Your task to perform on an android device: Empty the shopping cart on walmart.com. Search for "beats solo 3" on walmart.com, select the first entry, and add it to the cart. Image 0: 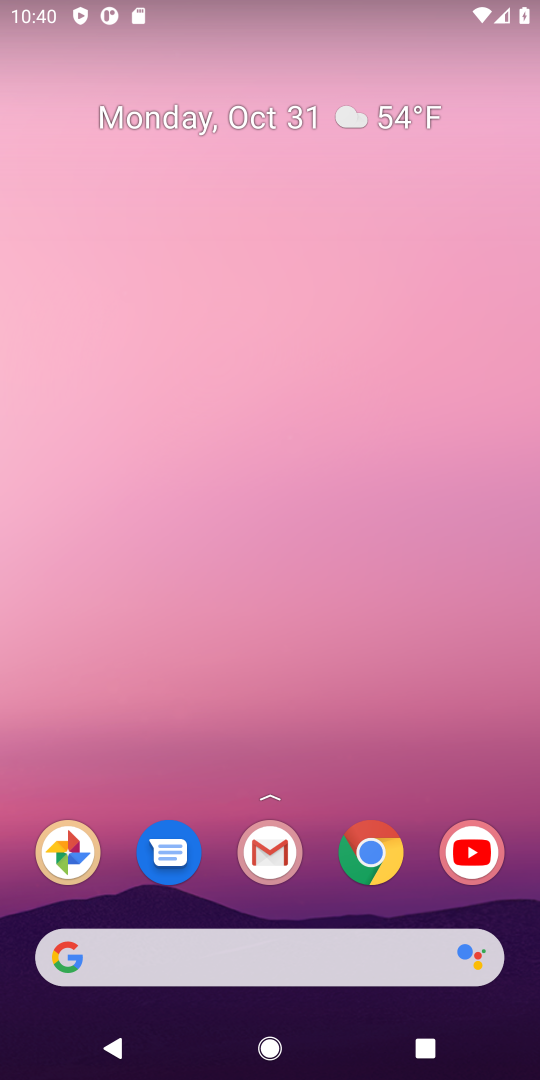
Step 0: click (356, 855)
Your task to perform on an android device: Empty the shopping cart on walmart.com. Search for "beats solo 3" on walmart.com, select the first entry, and add it to the cart. Image 1: 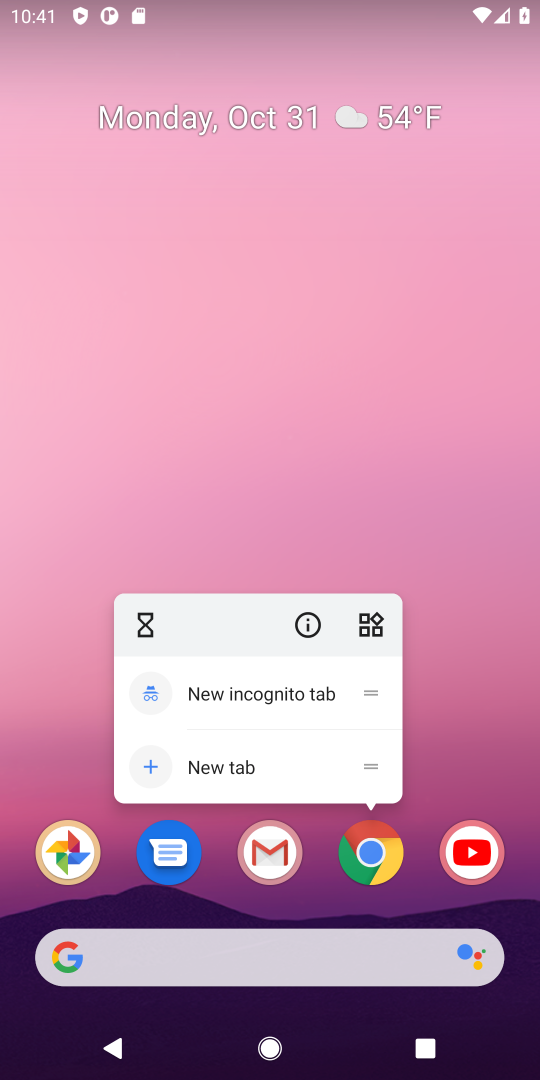
Step 1: click (380, 852)
Your task to perform on an android device: Empty the shopping cart on walmart.com. Search for "beats solo 3" on walmart.com, select the first entry, and add it to the cart. Image 2: 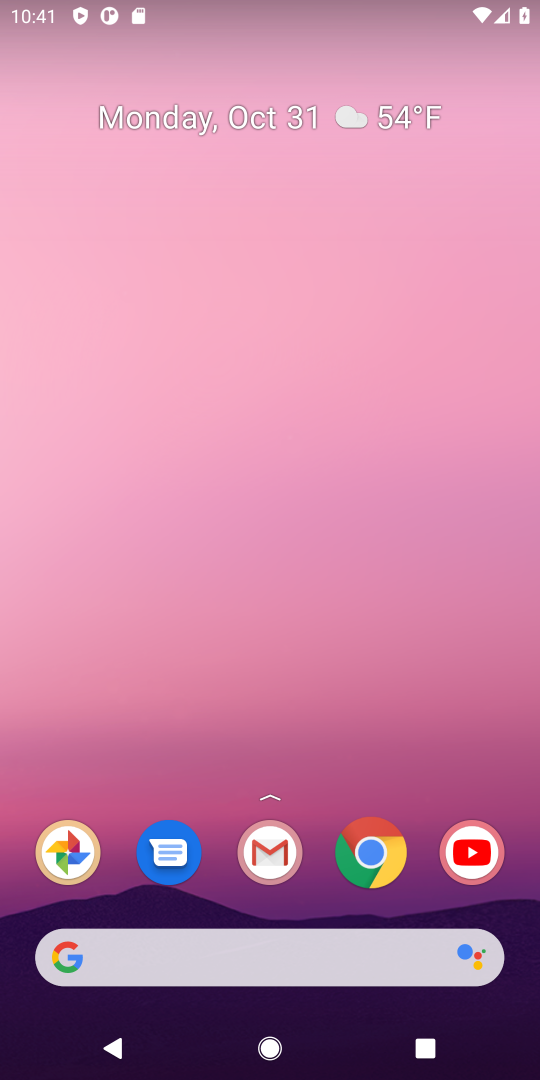
Step 2: click (380, 852)
Your task to perform on an android device: Empty the shopping cart on walmart.com. Search for "beats solo 3" on walmart.com, select the first entry, and add it to the cart. Image 3: 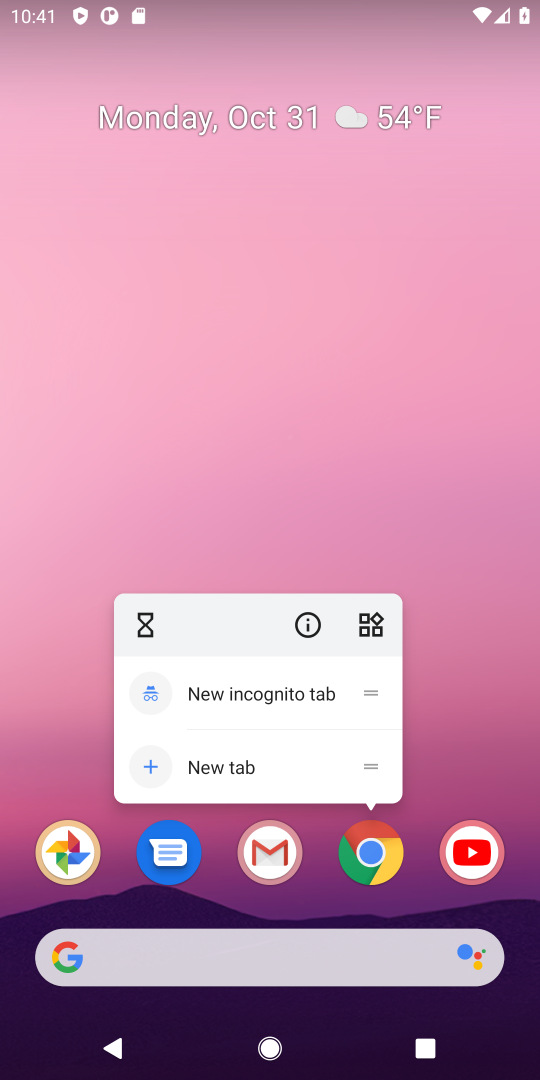
Step 3: click (382, 865)
Your task to perform on an android device: Empty the shopping cart on walmart.com. Search for "beats solo 3" on walmart.com, select the first entry, and add it to the cart. Image 4: 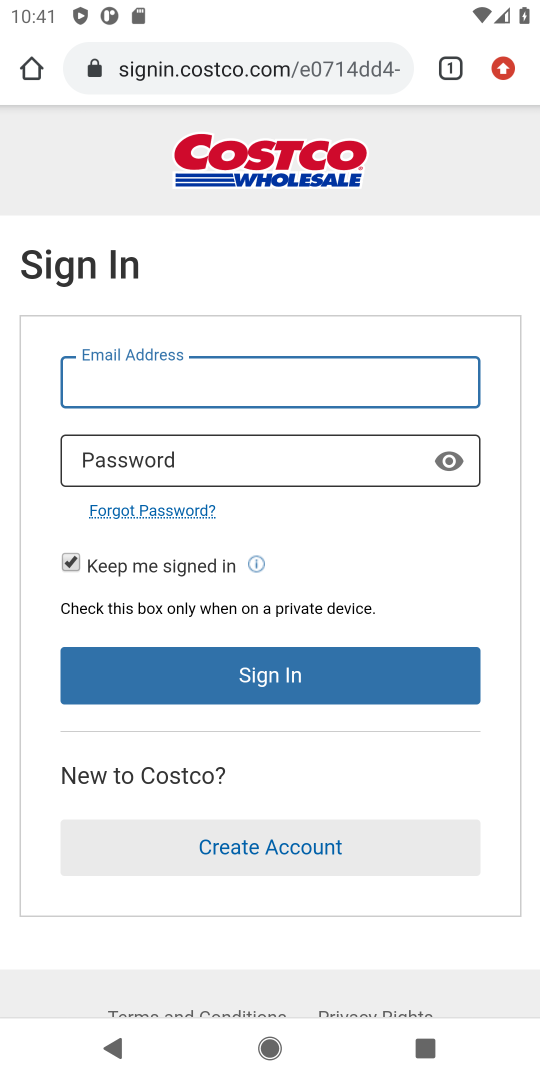
Step 4: click (258, 60)
Your task to perform on an android device: Empty the shopping cart on walmart.com. Search for "beats solo 3" on walmart.com, select the first entry, and add it to the cart. Image 5: 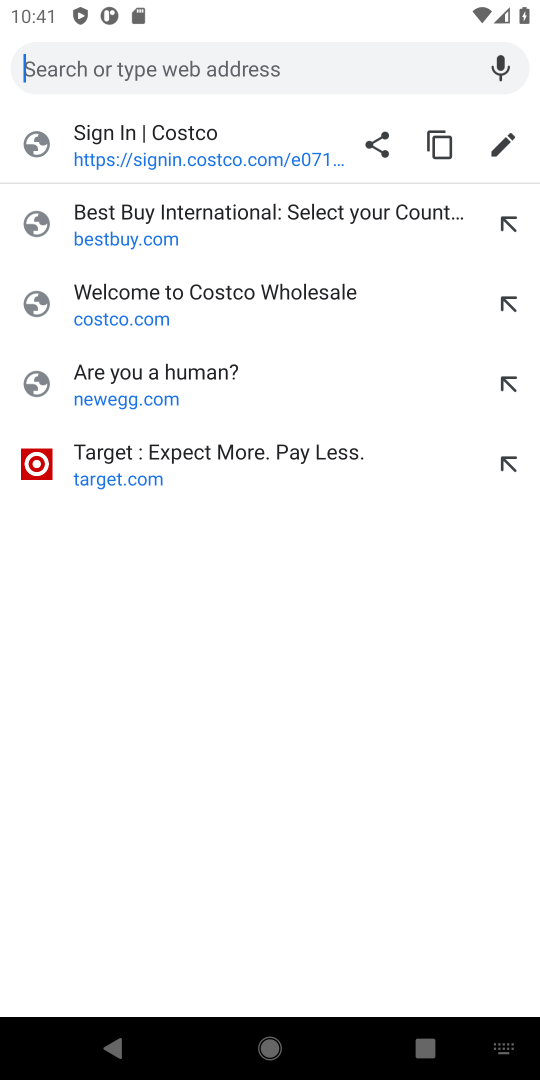
Step 5: type "walmart.com"
Your task to perform on an android device: Empty the shopping cart on walmart.com. Search for "beats solo 3" on walmart.com, select the first entry, and add it to the cart. Image 6: 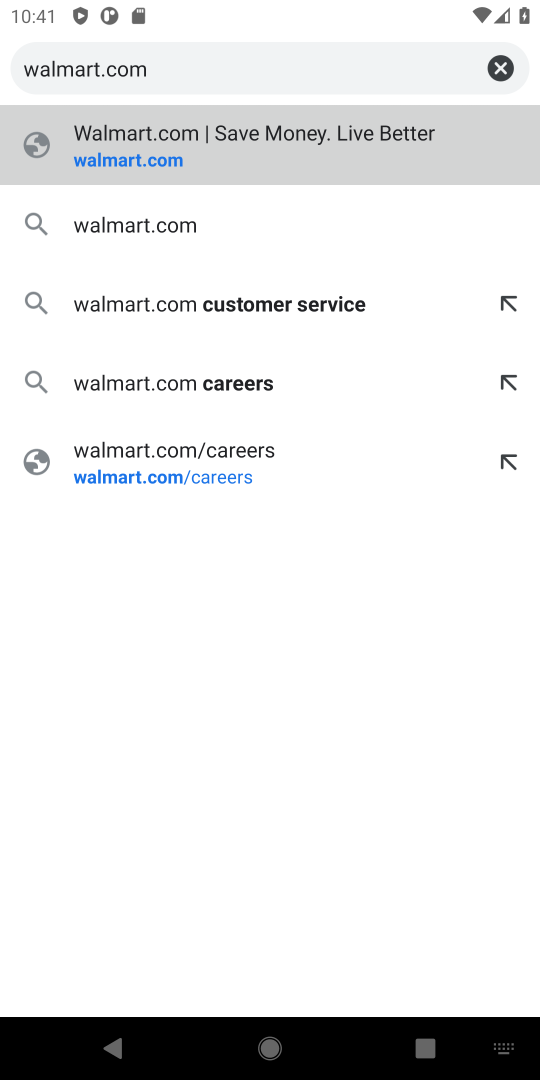
Step 6: type ""
Your task to perform on an android device: Empty the shopping cart on walmart.com. Search for "beats solo 3" on walmart.com, select the first entry, and add it to the cart. Image 7: 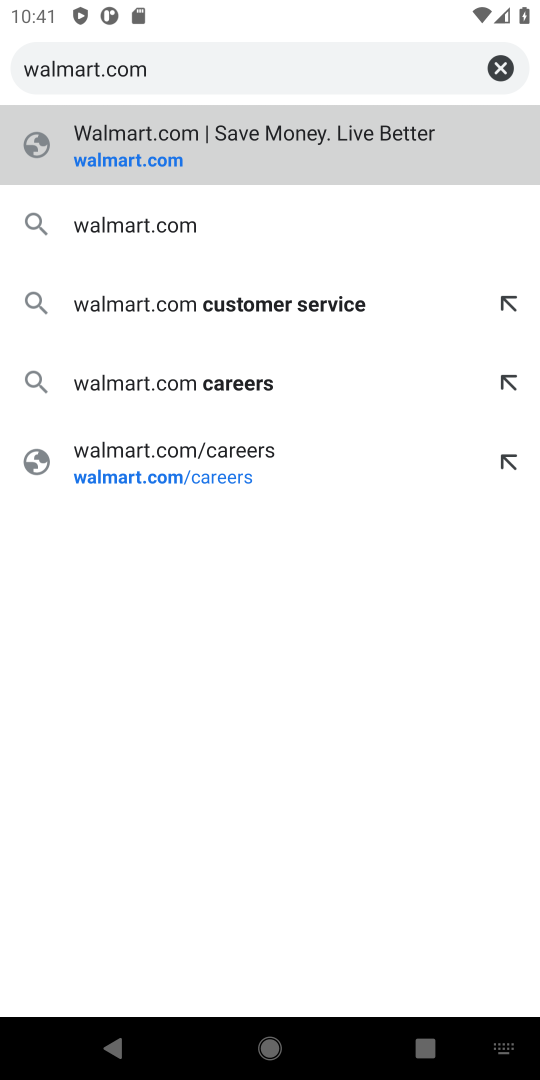
Step 7: press enter
Your task to perform on an android device: Empty the shopping cart on walmart.com. Search for "beats solo 3" on walmart.com, select the first entry, and add it to the cart. Image 8: 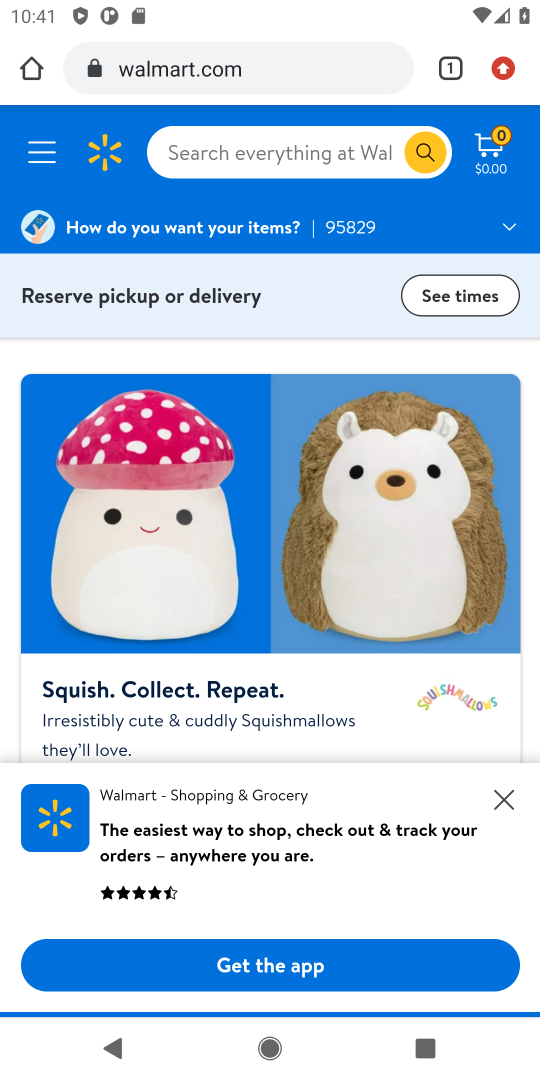
Step 8: click (497, 151)
Your task to perform on an android device: Empty the shopping cart on walmart.com. Search for "beats solo 3" on walmart.com, select the first entry, and add it to the cart. Image 9: 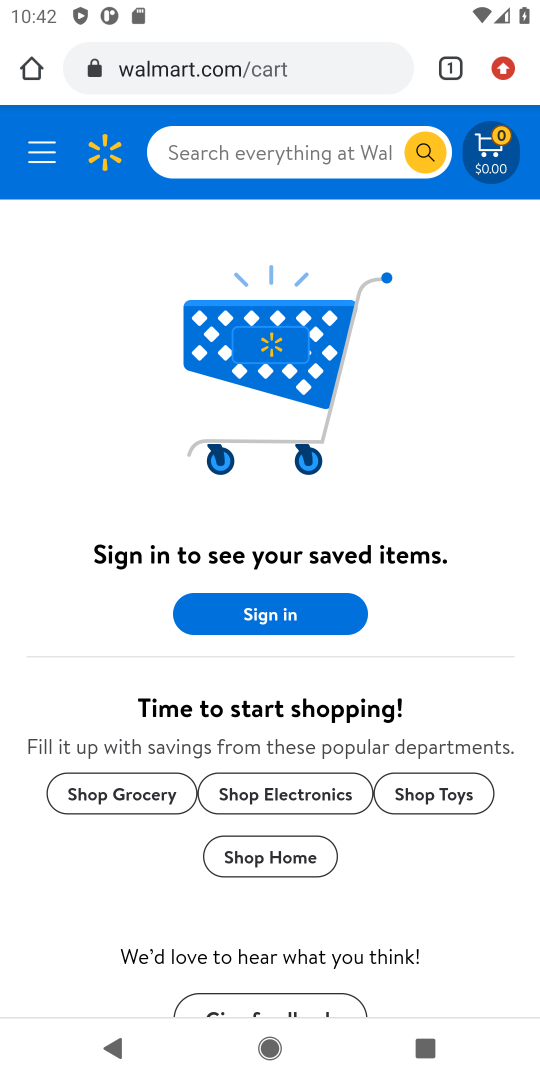
Step 9: click (277, 150)
Your task to perform on an android device: Empty the shopping cart on walmart.com. Search for "beats solo 3" on walmart.com, select the first entry, and add it to the cart. Image 10: 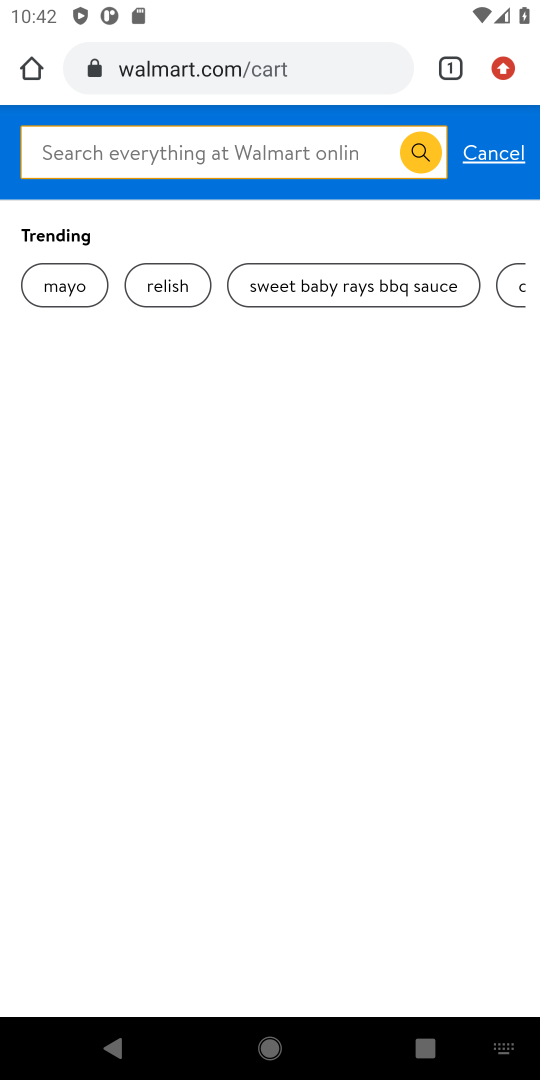
Step 10: type "beats solo 3"
Your task to perform on an android device: Empty the shopping cart on walmart.com. Search for "beats solo 3" on walmart.com, select the first entry, and add it to the cart. Image 11: 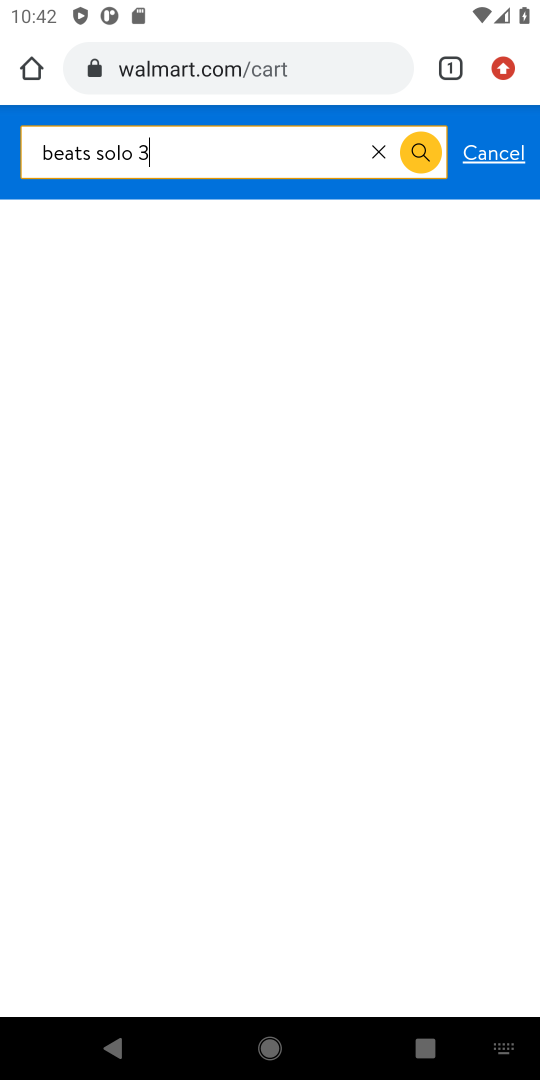
Step 11: type ""
Your task to perform on an android device: Empty the shopping cart on walmart.com. Search for "beats solo 3" on walmart.com, select the first entry, and add it to the cart. Image 12: 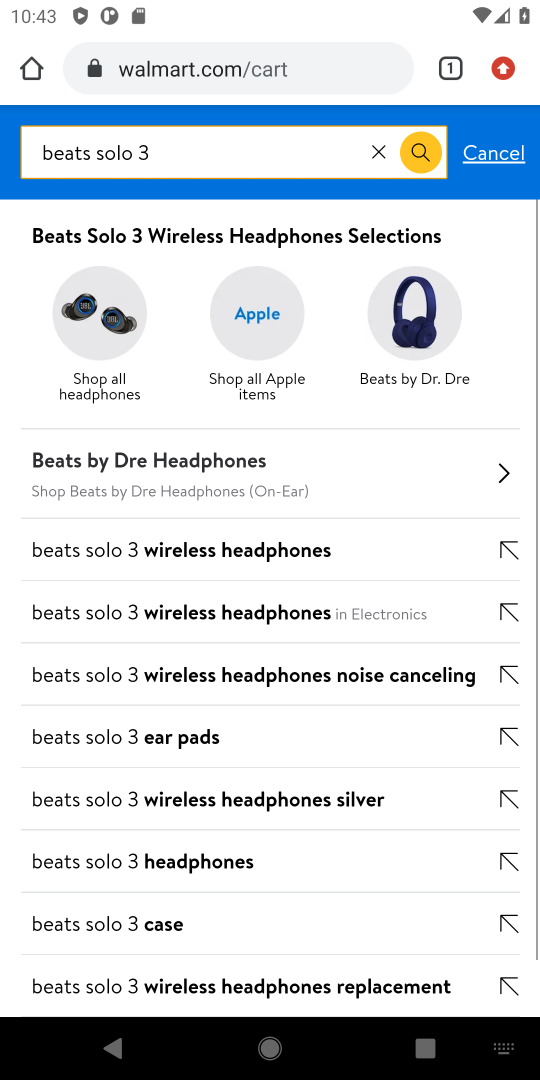
Step 12: press enter
Your task to perform on an android device: Empty the shopping cart on walmart.com. Search for "beats solo 3" on walmart.com, select the first entry, and add it to the cart. Image 13: 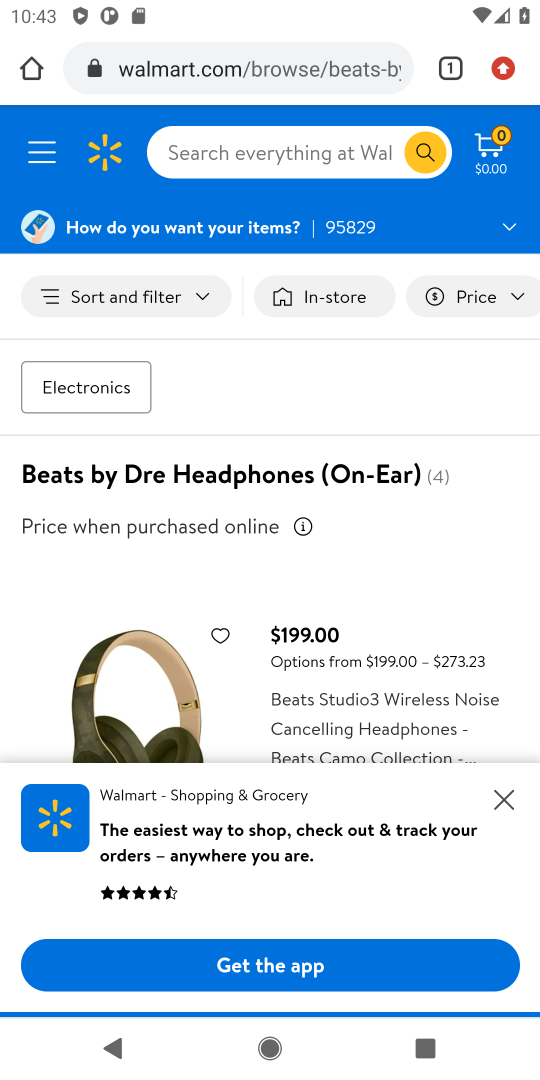
Step 13: click (502, 805)
Your task to perform on an android device: Empty the shopping cart on walmart.com. Search for "beats solo 3" on walmart.com, select the first entry, and add it to the cart. Image 14: 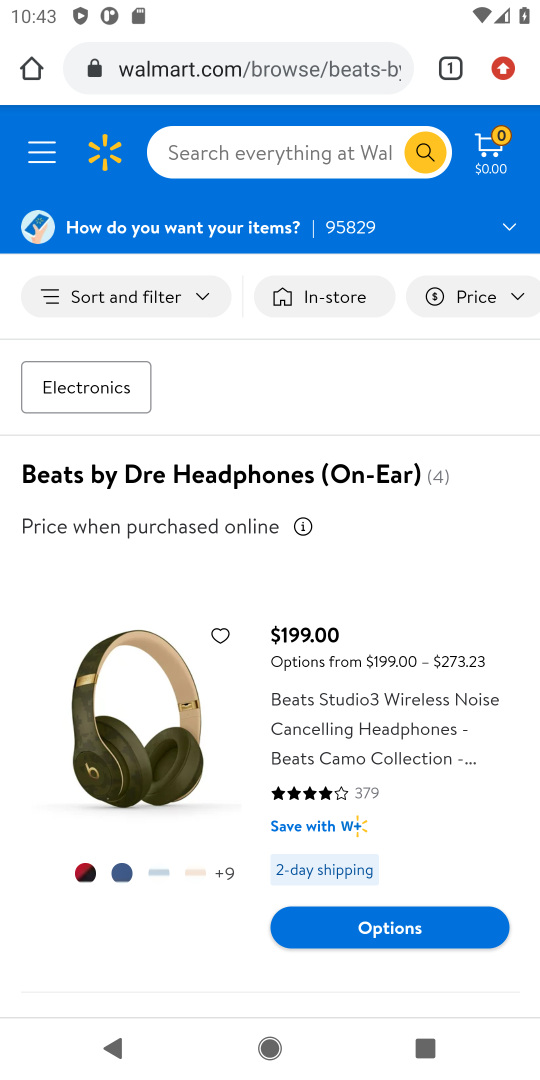
Step 14: drag from (391, 677) to (367, 413)
Your task to perform on an android device: Empty the shopping cart on walmart.com. Search for "beats solo 3" on walmart.com, select the first entry, and add it to the cart. Image 15: 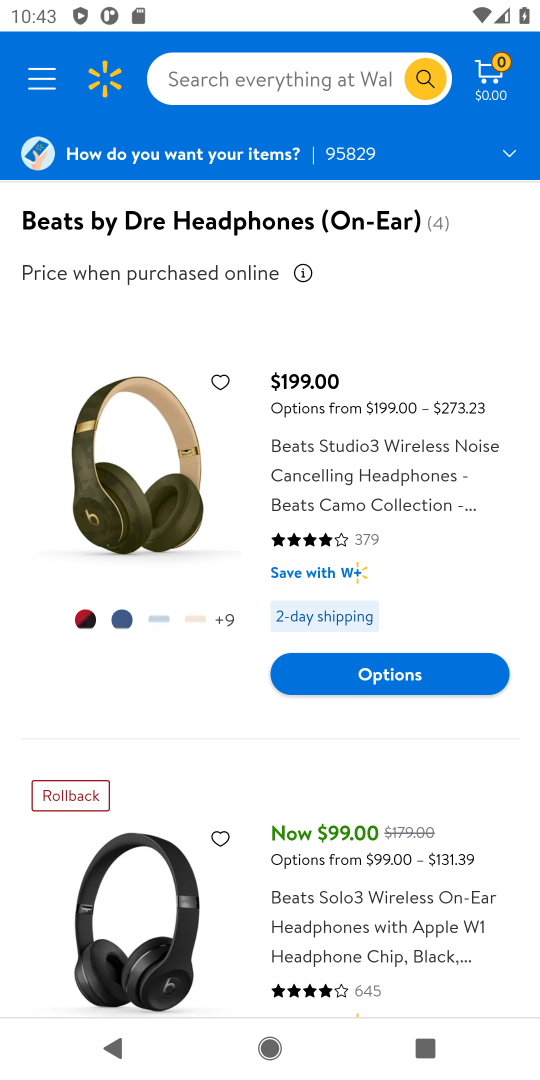
Step 15: drag from (268, 798) to (302, 359)
Your task to perform on an android device: Empty the shopping cart on walmart.com. Search for "beats solo 3" on walmart.com, select the first entry, and add it to the cart. Image 16: 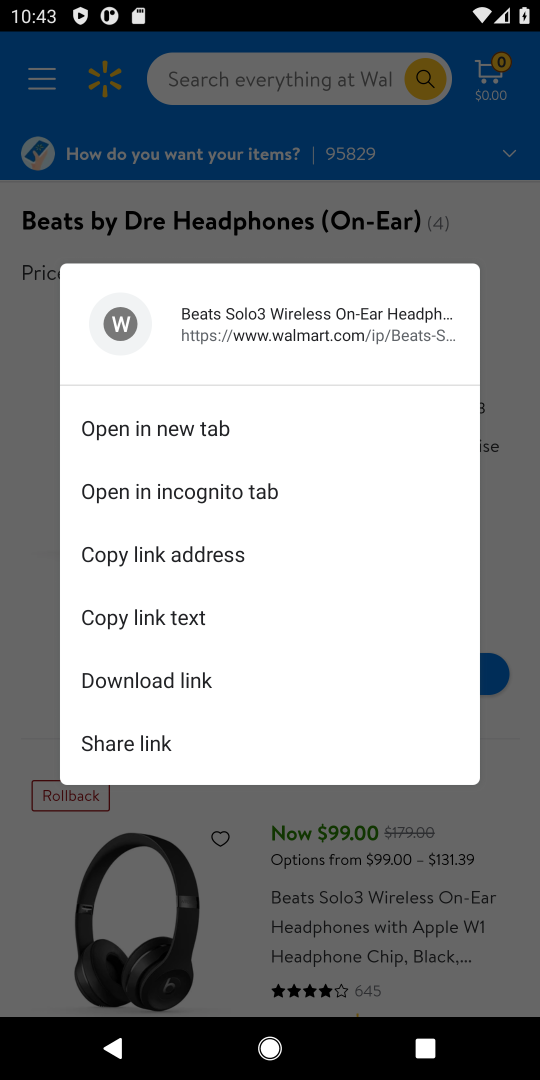
Step 16: click (512, 547)
Your task to perform on an android device: Empty the shopping cart on walmart.com. Search for "beats solo 3" on walmart.com, select the first entry, and add it to the cart. Image 17: 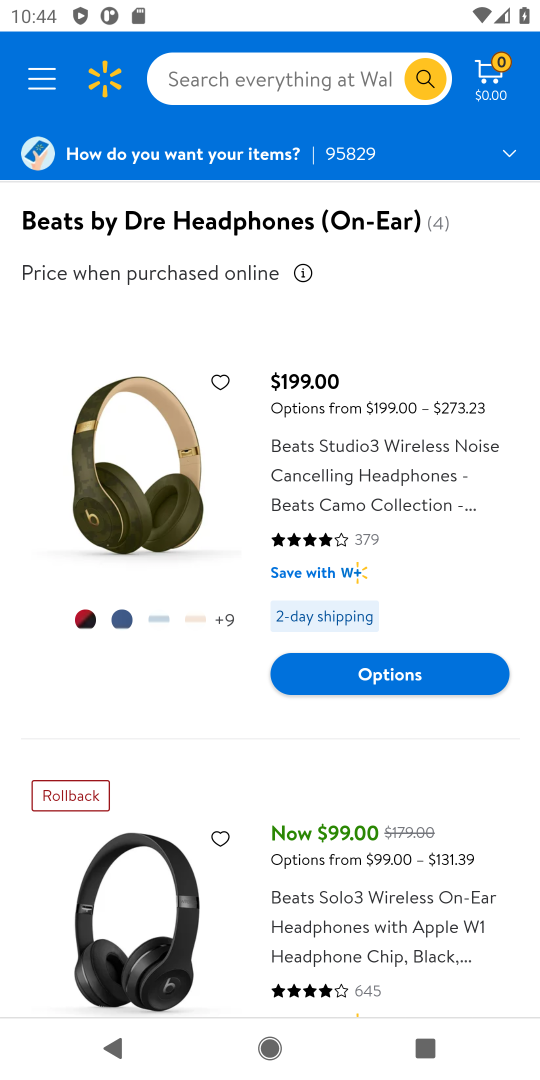
Step 17: drag from (399, 908) to (451, 574)
Your task to perform on an android device: Empty the shopping cart on walmart.com. Search for "beats solo 3" on walmart.com, select the first entry, and add it to the cart. Image 18: 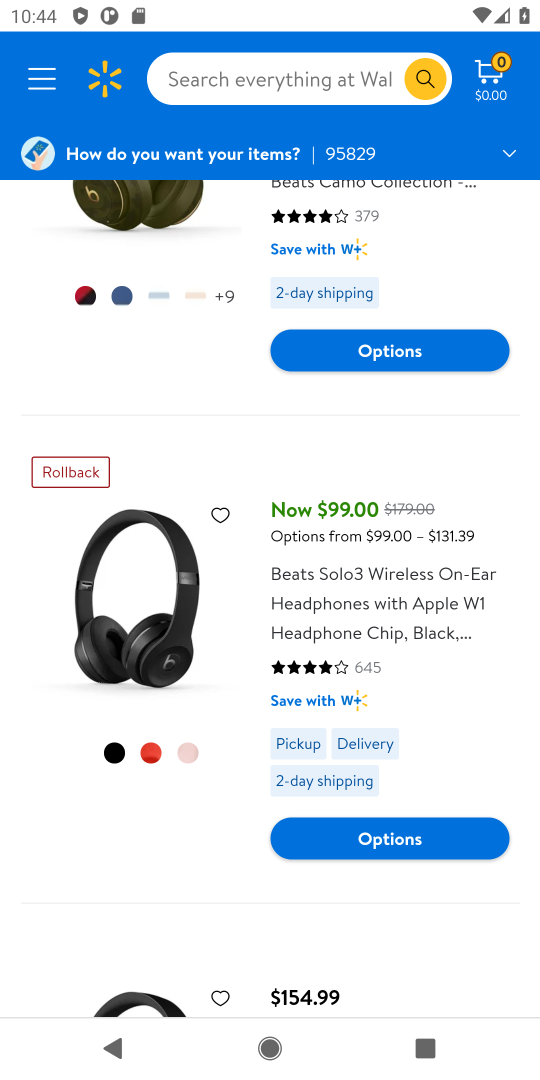
Step 18: click (405, 843)
Your task to perform on an android device: Empty the shopping cart on walmart.com. Search for "beats solo 3" on walmart.com, select the first entry, and add it to the cart. Image 19: 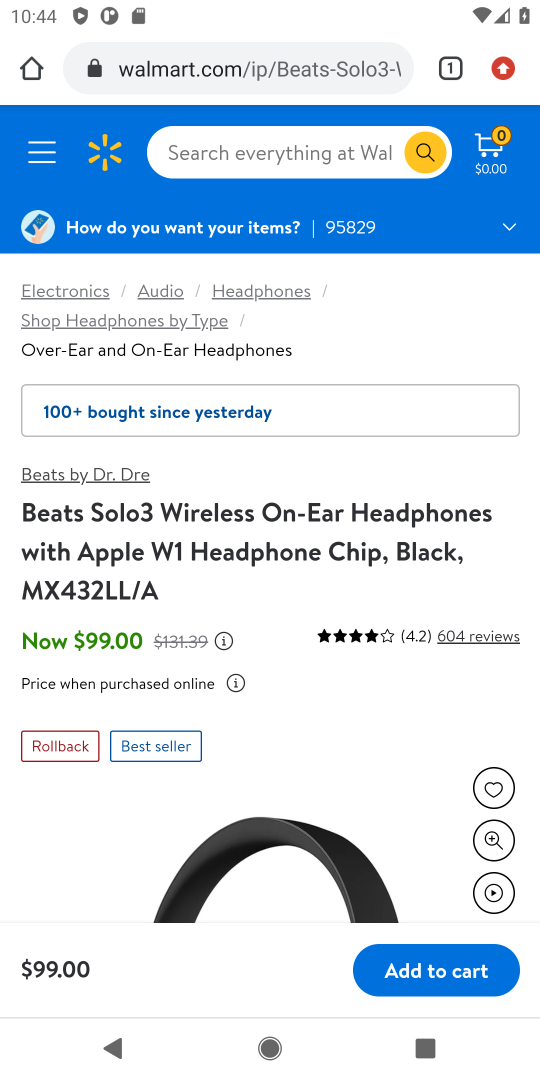
Step 19: click (416, 981)
Your task to perform on an android device: Empty the shopping cart on walmart.com. Search for "beats solo 3" on walmart.com, select the first entry, and add it to the cart. Image 20: 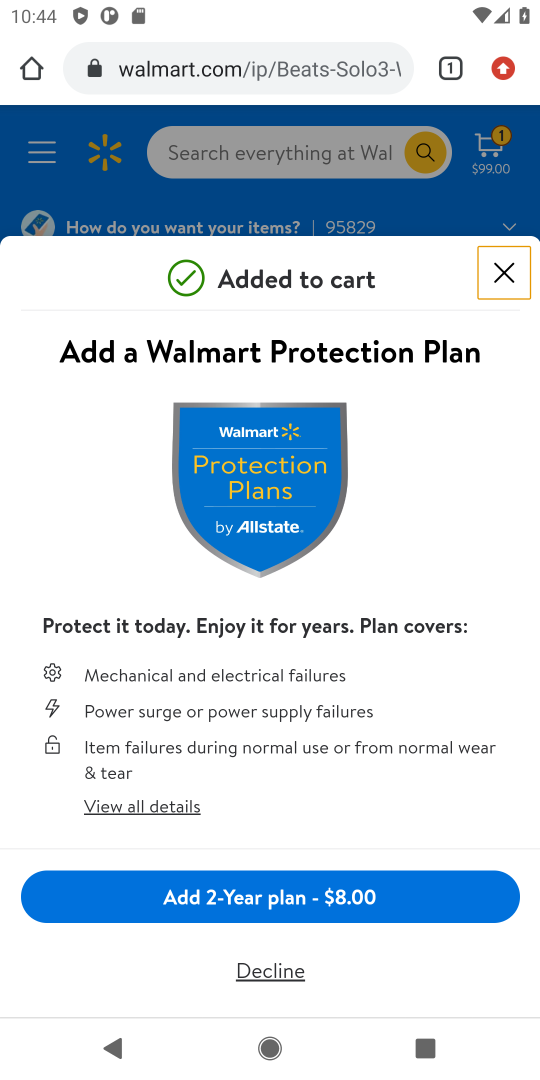
Step 20: click (275, 969)
Your task to perform on an android device: Empty the shopping cart on walmart.com. Search for "beats solo 3" on walmart.com, select the first entry, and add it to the cart. Image 21: 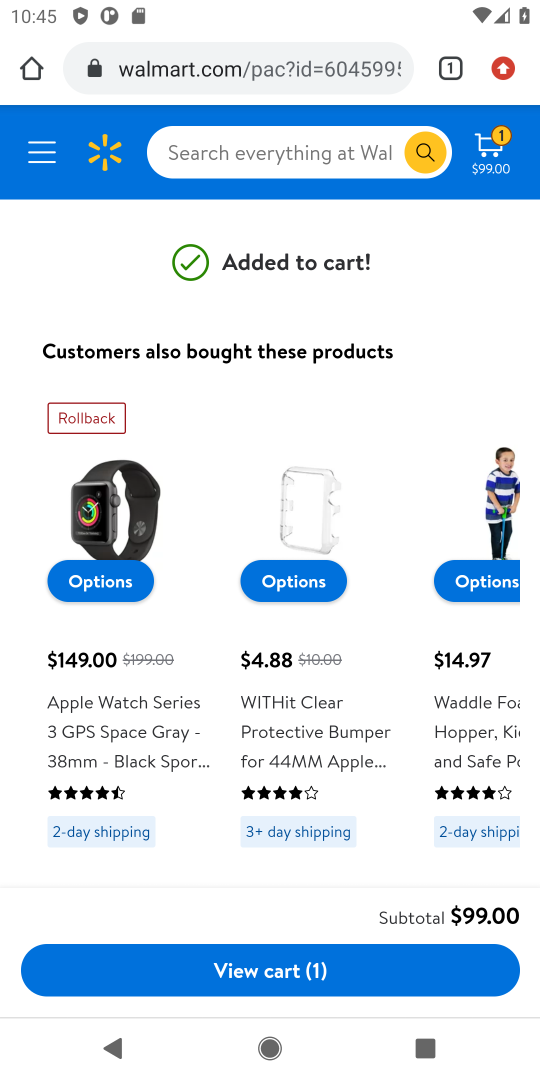
Step 21: drag from (271, 725) to (295, 495)
Your task to perform on an android device: Empty the shopping cart on walmart.com. Search for "beats solo 3" on walmart.com, select the first entry, and add it to the cart. Image 22: 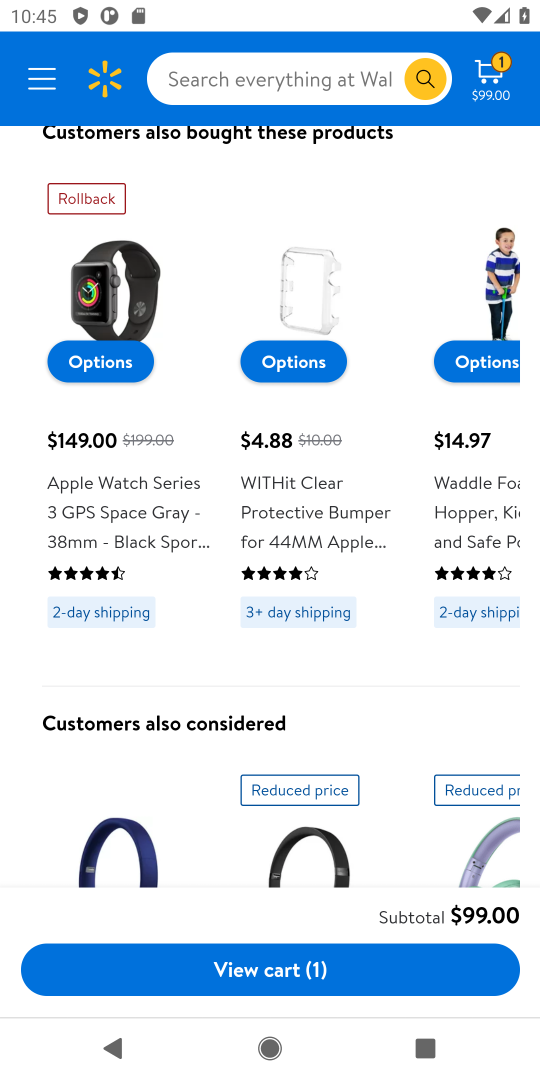
Step 22: click (309, 965)
Your task to perform on an android device: Empty the shopping cart on walmart.com. Search for "beats solo 3" on walmart.com, select the first entry, and add it to the cart. Image 23: 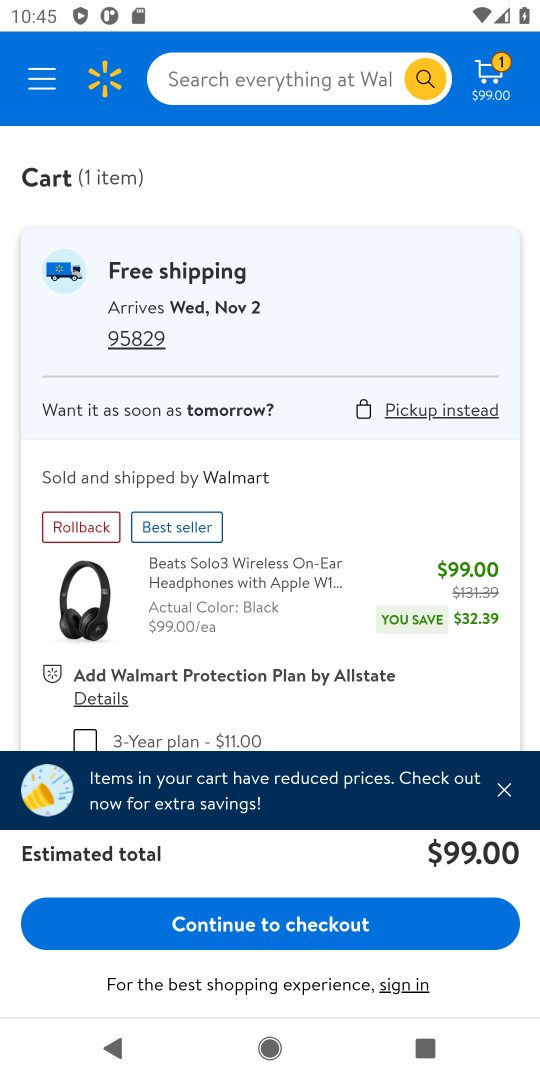
Step 23: task complete